Your task to perform on an android device: Search for Mexican restaurants on Maps Image 0: 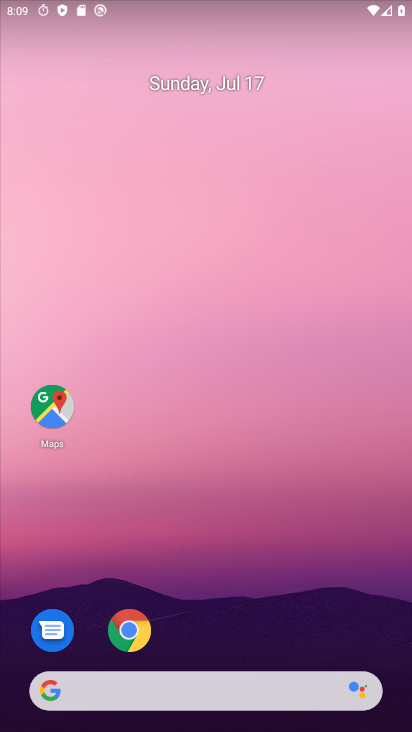
Step 0: click (48, 401)
Your task to perform on an android device: Search for Mexican restaurants on Maps Image 1: 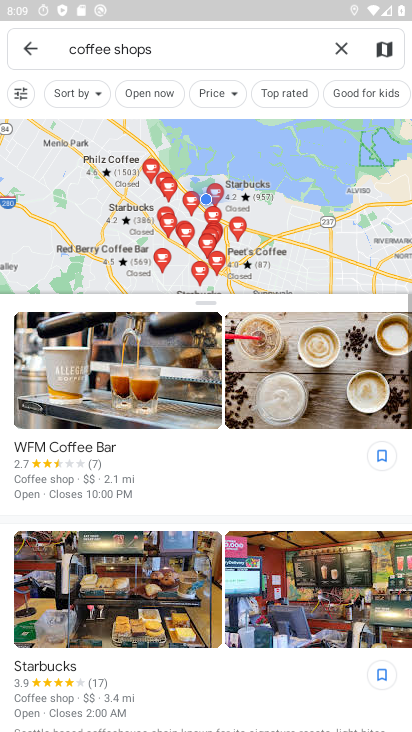
Step 1: click (342, 48)
Your task to perform on an android device: Search for Mexican restaurants on Maps Image 2: 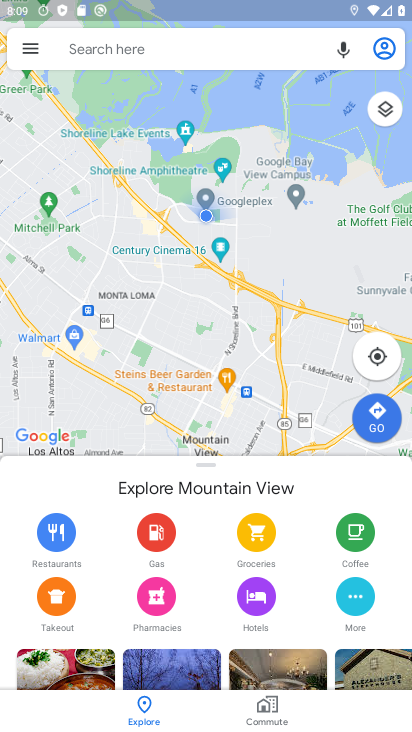
Step 2: click (101, 50)
Your task to perform on an android device: Search for Mexican restaurants on Maps Image 3: 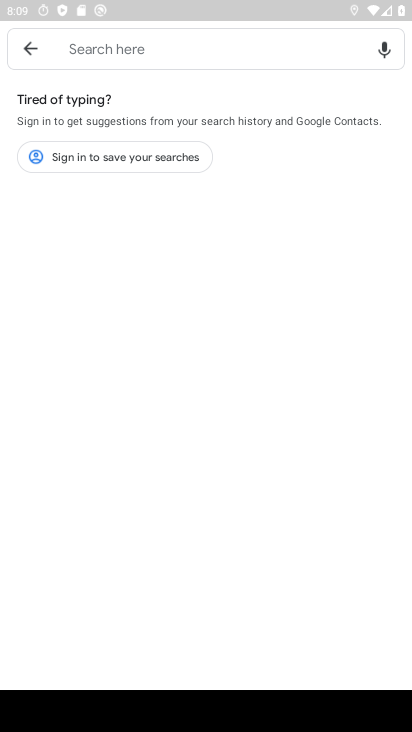
Step 3: type "Mexican restaurants"
Your task to perform on an android device: Search for Mexican restaurants on Maps Image 4: 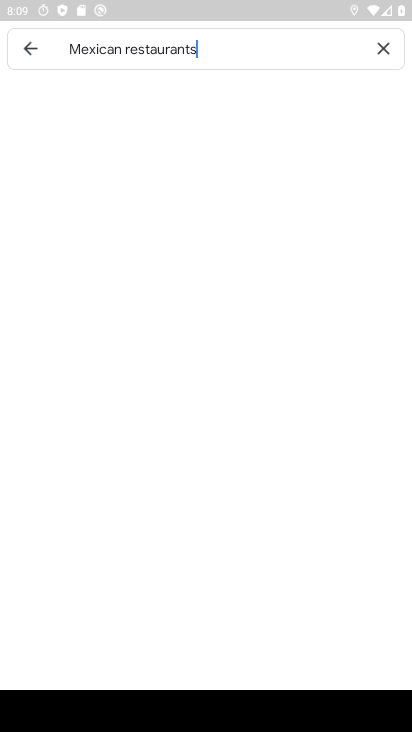
Step 4: type ""
Your task to perform on an android device: Search for Mexican restaurants on Maps Image 5: 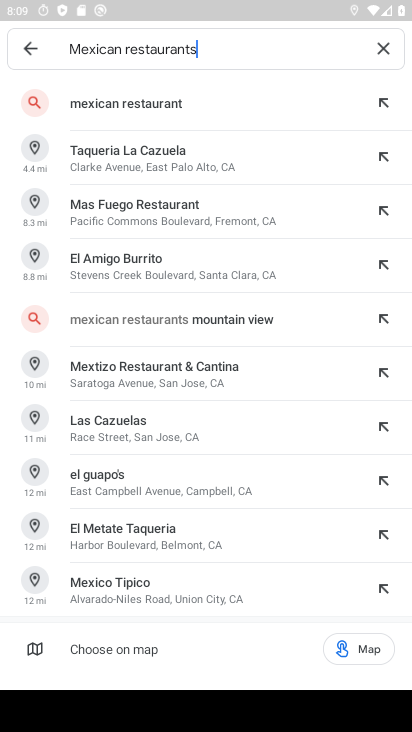
Step 5: click (213, 102)
Your task to perform on an android device: Search for Mexican restaurants on Maps Image 6: 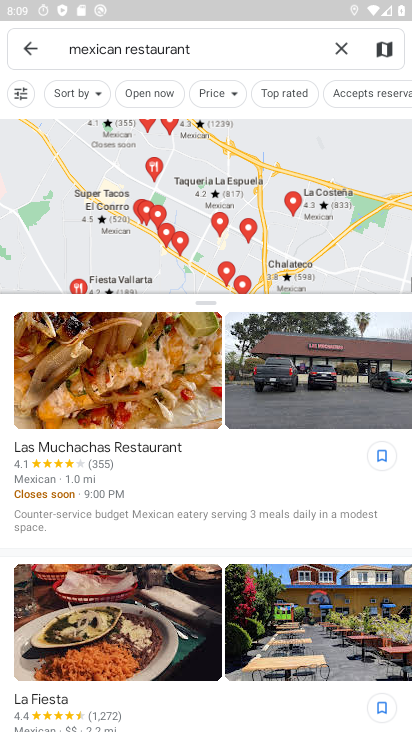
Step 6: task complete